Your task to perform on an android device: change the clock display to show seconds Image 0: 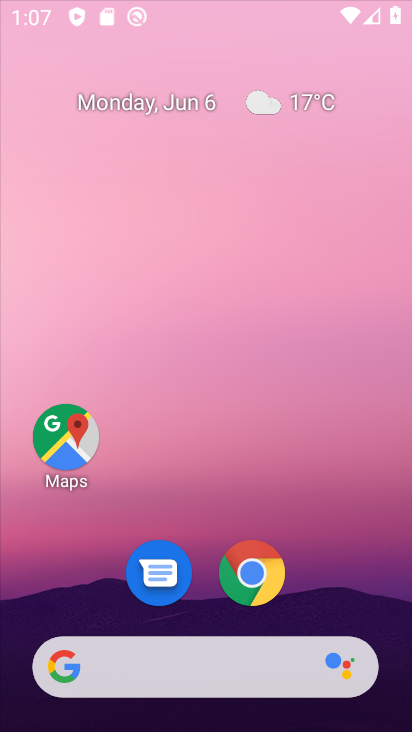
Step 0: press home button
Your task to perform on an android device: change the clock display to show seconds Image 1: 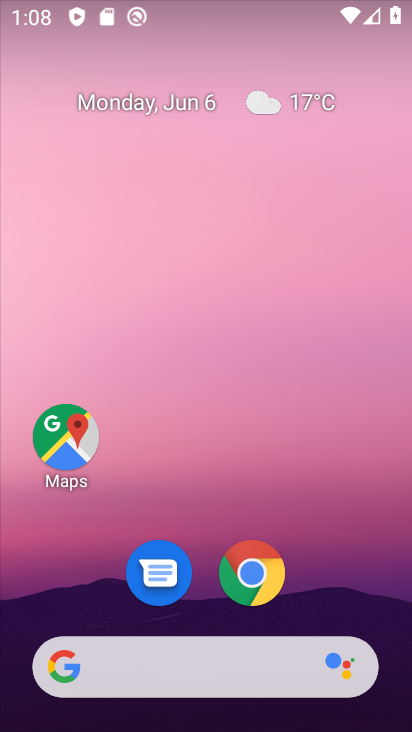
Step 1: drag from (378, 553) to (405, 219)
Your task to perform on an android device: change the clock display to show seconds Image 2: 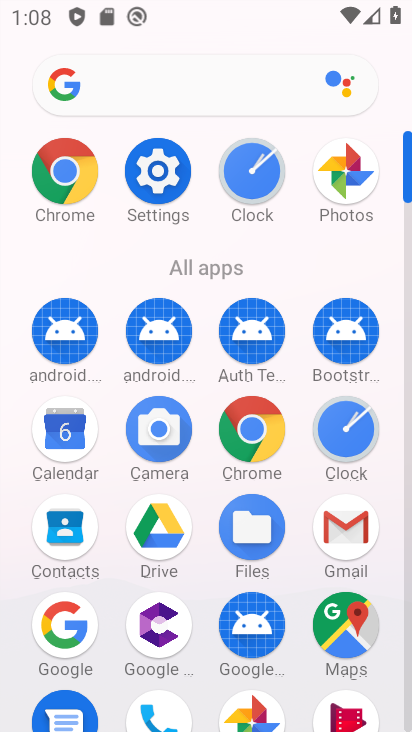
Step 2: click (363, 438)
Your task to perform on an android device: change the clock display to show seconds Image 3: 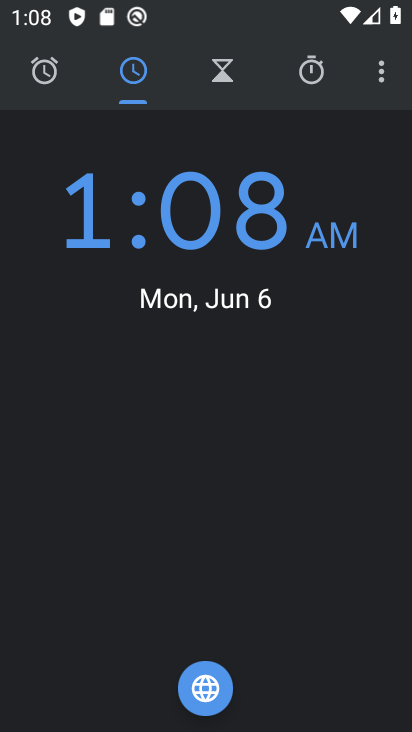
Step 3: click (386, 78)
Your task to perform on an android device: change the clock display to show seconds Image 4: 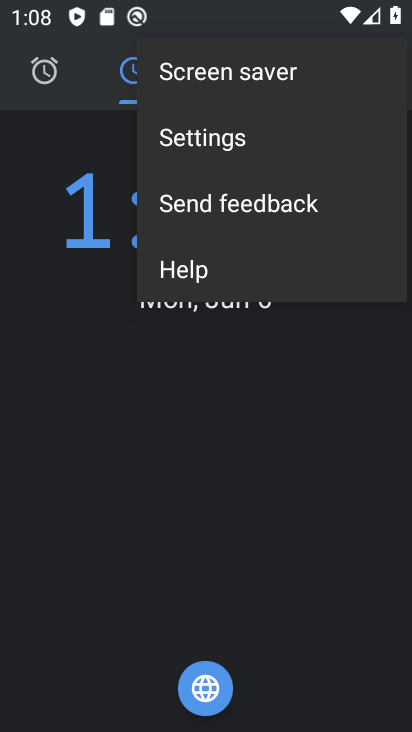
Step 4: click (245, 141)
Your task to perform on an android device: change the clock display to show seconds Image 5: 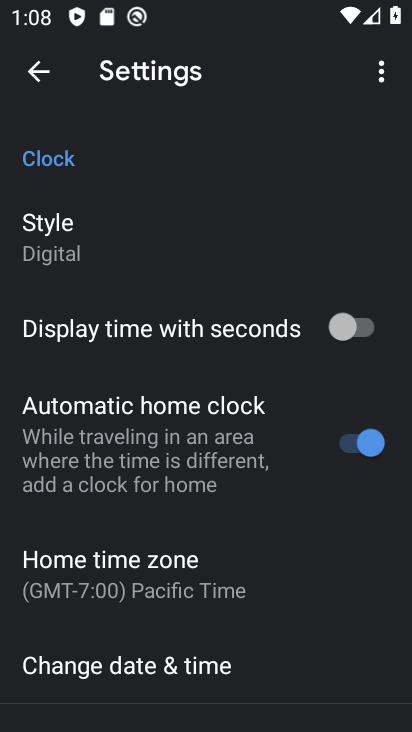
Step 5: drag from (288, 557) to (295, 453)
Your task to perform on an android device: change the clock display to show seconds Image 6: 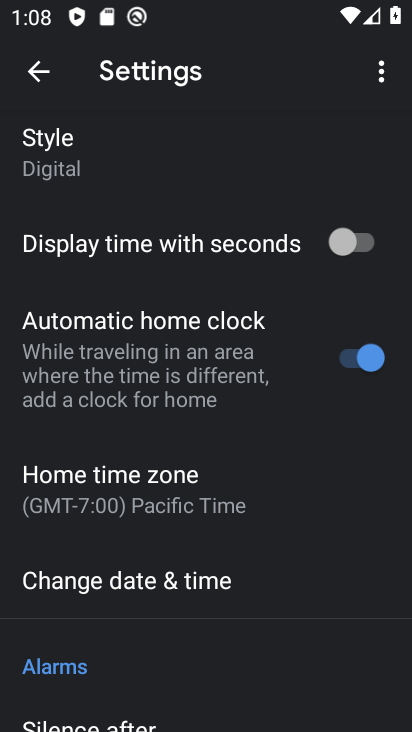
Step 6: drag from (325, 591) to (328, 460)
Your task to perform on an android device: change the clock display to show seconds Image 7: 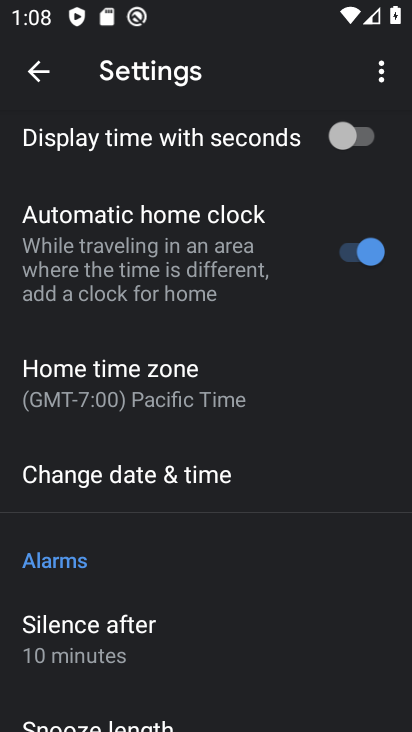
Step 7: drag from (326, 599) to (333, 428)
Your task to perform on an android device: change the clock display to show seconds Image 8: 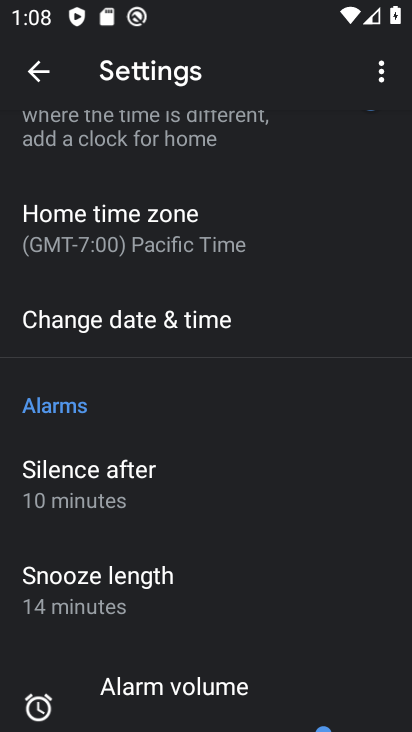
Step 8: drag from (339, 564) to (340, 396)
Your task to perform on an android device: change the clock display to show seconds Image 9: 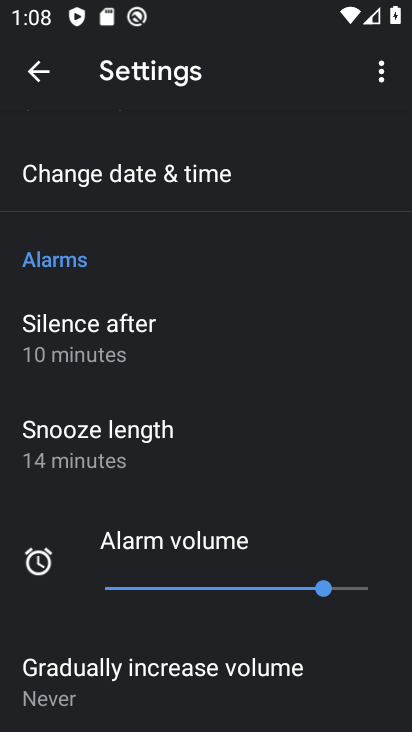
Step 9: drag from (352, 627) to (357, 398)
Your task to perform on an android device: change the clock display to show seconds Image 10: 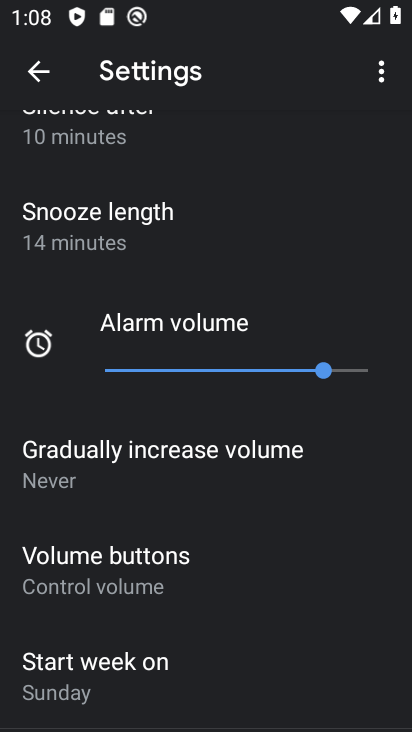
Step 10: drag from (362, 553) to (362, 349)
Your task to perform on an android device: change the clock display to show seconds Image 11: 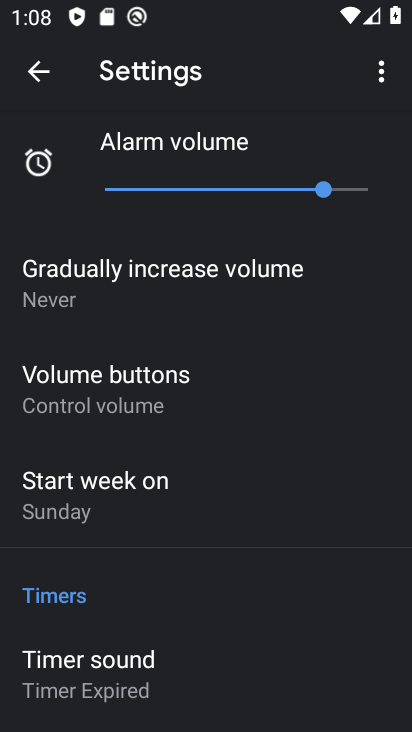
Step 11: drag from (364, 265) to (365, 407)
Your task to perform on an android device: change the clock display to show seconds Image 12: 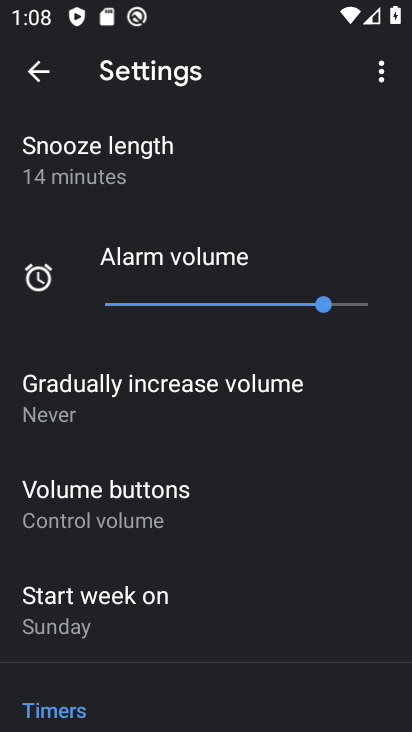
Step 12: drag from (353, 185) to (345, 334)
Your task to perform on an android device: change the clock display to show seconds Image 13: 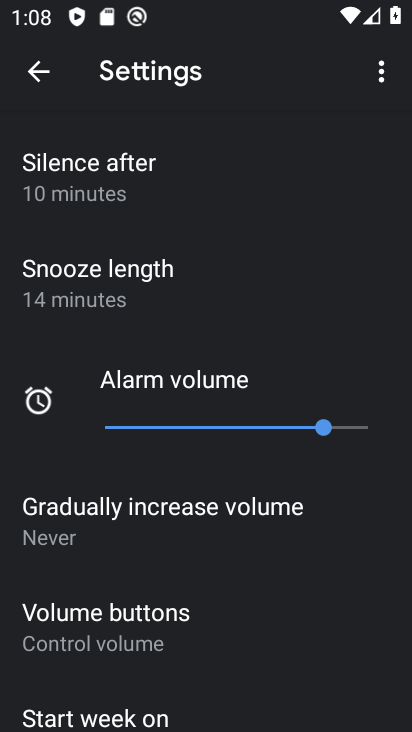
Step 13: drag from (344, 187) to (336, 321)
Your task to perform on an android device: change the clock display to show seconds Image 14: 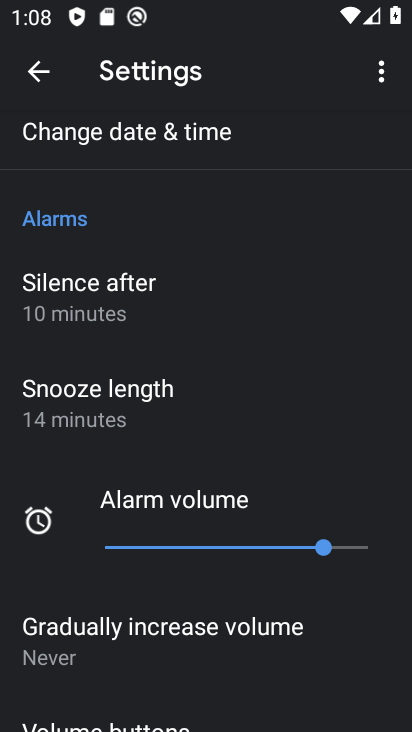
Step 14: drag from (327, 186) to (324, 320)
Your task to perform on an android device: change the clock display to show seconds Image 15: 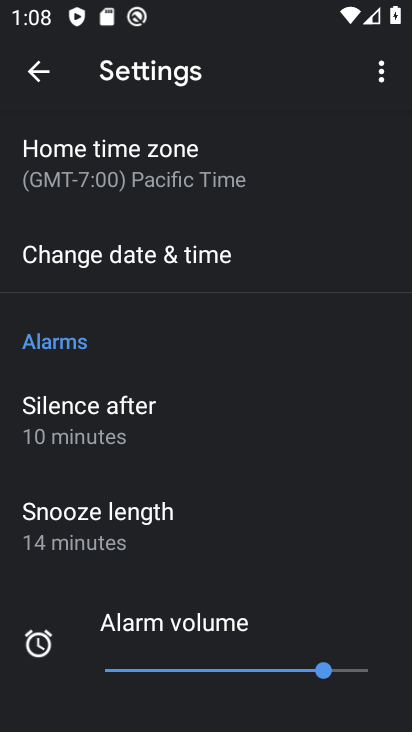
Step 15: drag from (323, 169) to (325, 338)
Your task to perform on an android device: change the clock display to show seconds Image 16: 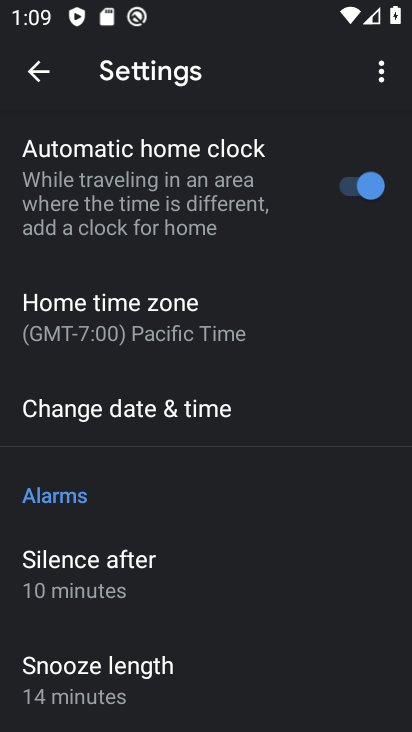
Step 16: drag from (297, 156) to (285, 332)
Your task to perform on an android device: change the clock display to show seconds Image 17: 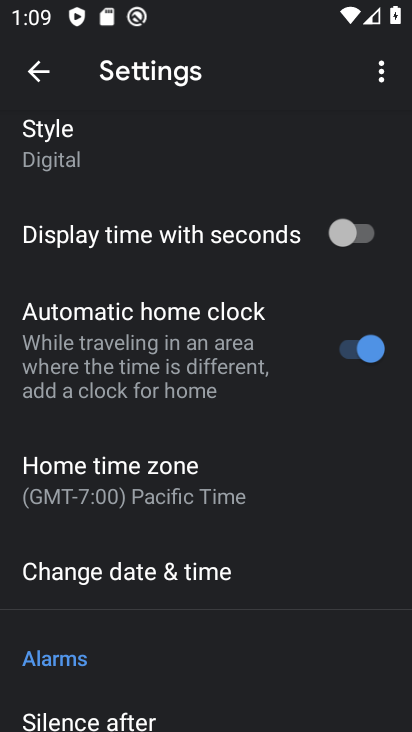
Step 17: click (341, 249)
Your task to perform on an android device: change the clock display to show seconds Image 18: 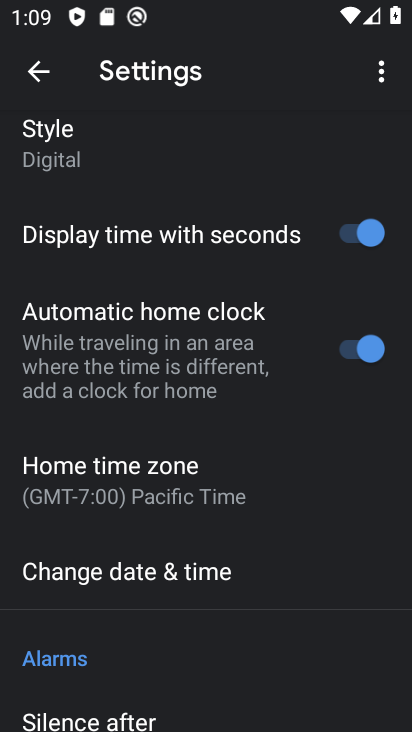
Step 18: task complete